Your task to perform on an android device: change the upload size in google photos Image 0: 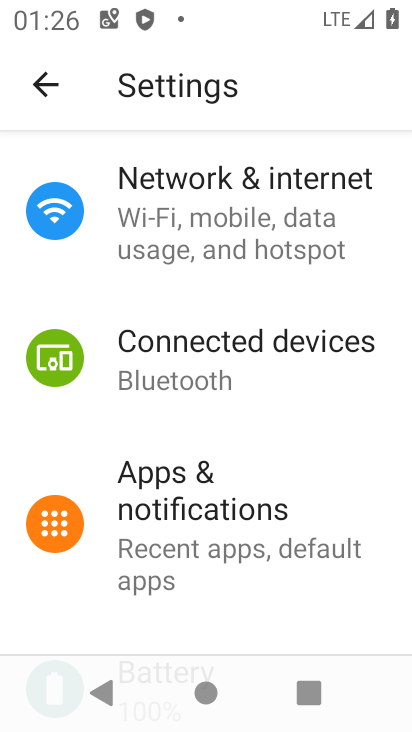
Step 0: press home button
Your task to perform on an android device: change the upload size in google photos Image 1: 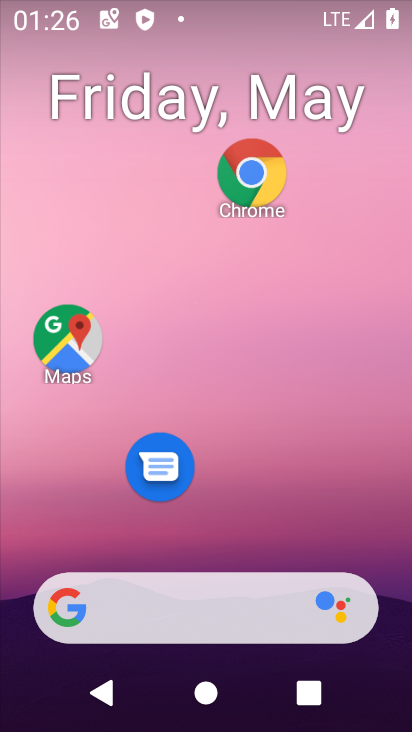
Step 1: drag from (287, 672) to (289, 211)
Your task to perform on an android device: change the upload size in google photos Image 2: 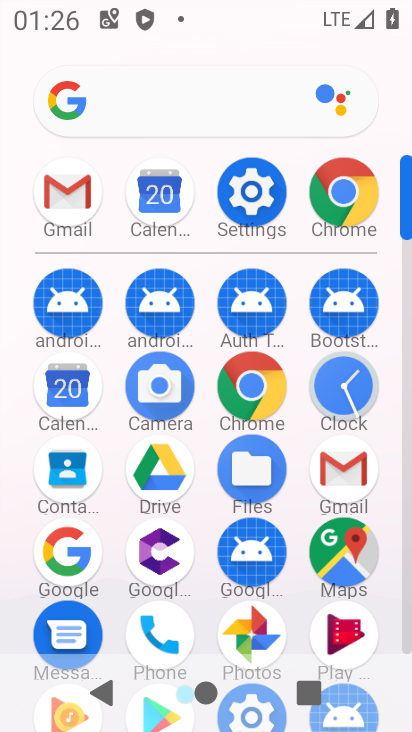
Step 2: click (258, 643)
Your task to perform on an android device: change the upload size in google photos Image 3: 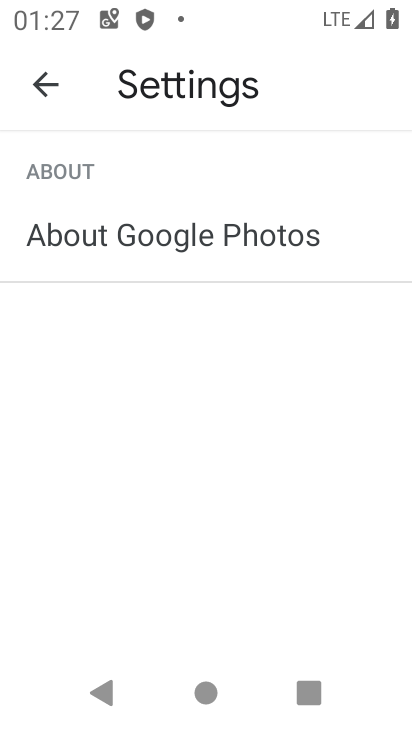
Step 3: click (53, 102)
Your task to perform on an android device: change the upload size in google photos Image 4: 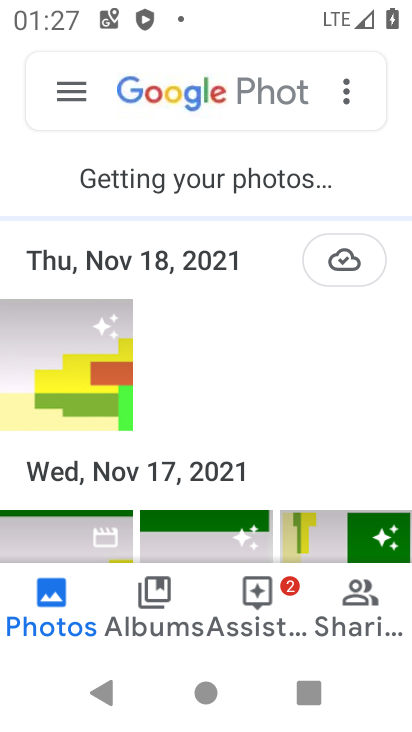
Step 4: click (59, 78)
Your task to perform on an android device: change the upload size in google photos Image 5: 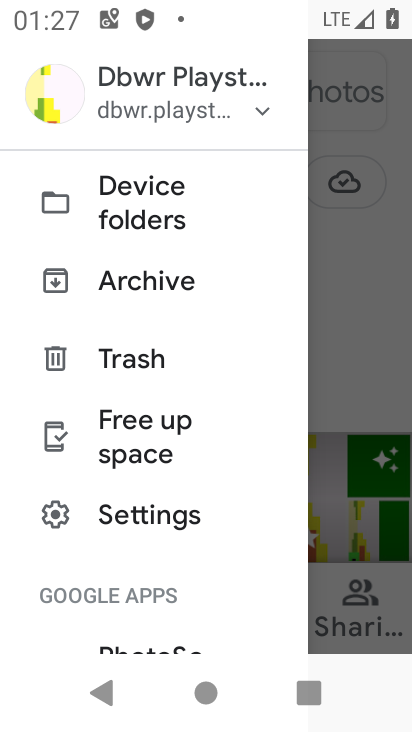
Step 5: click (133, 521)
Your task to perform on an android device: change the upload size in google photos Image 6: 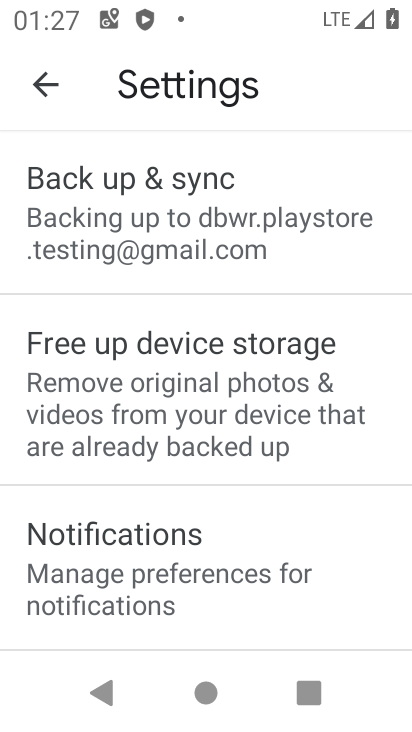
Step 6: click (90, 273)
Your task to perform on an android device: change the upload size in google photos Image 7: 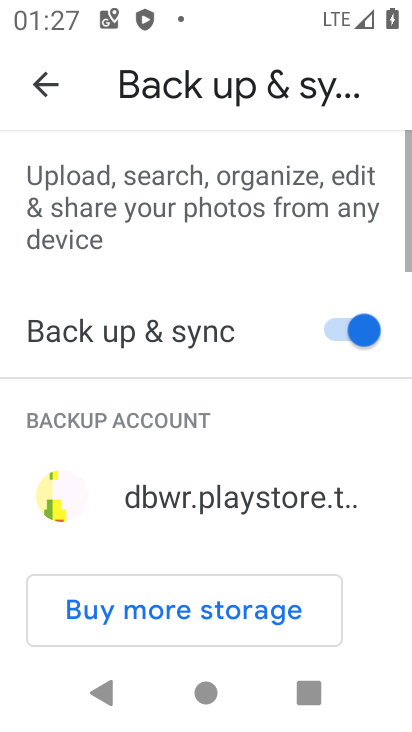
Step 7: drag from (218, 559) to (263, 307)
Your task to perform on an android device: change the upload size in google photos Image 8: 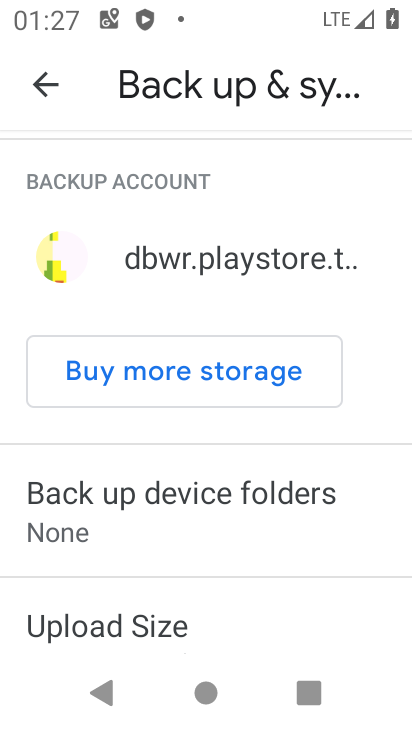
Step 8: click (213, 606)
Your task to perform on an android device: change the upload size in google photos Image 9: 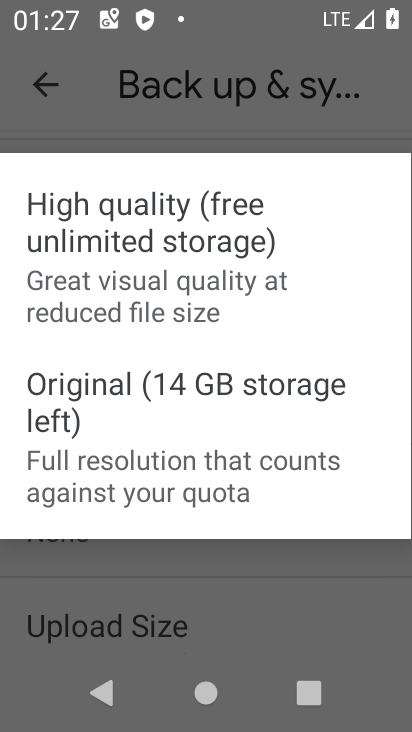
Step 9: task complete